Your task to perform on an android device: Open the calendar app, open the side menu, and click the "Day" option Image 0: 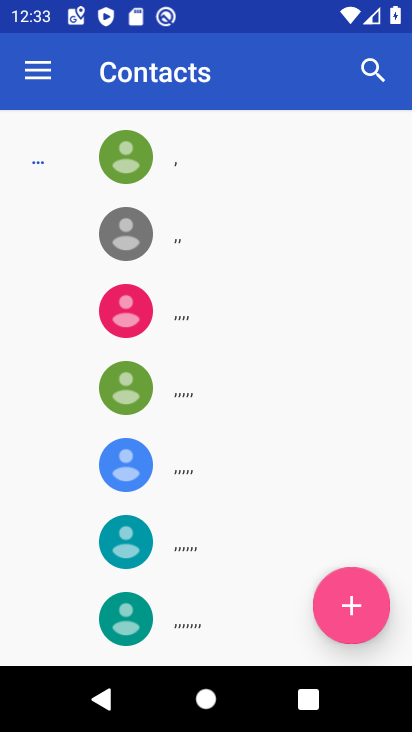
Step 0: press home button
Your task to perform on an android device: Open the calendar app, open the side menu, and click the "Day" option Image 1: 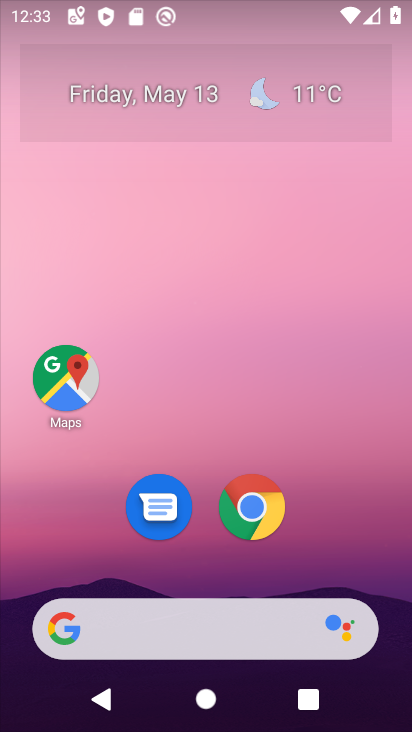
Step 1: drag from (195, 560) to (186, 24)
Your task to perform on an android device: Open the calendar app, open the side menu, and click the "Day" option Image 2: 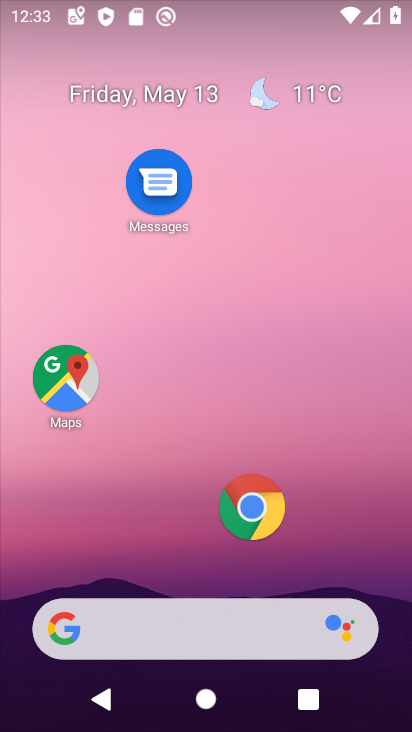
Step 2: drag from (194, 559) to (119, 2)
Your task to perform on an android device: Open the calendar app, open the side menu, and click the "Day" option Image 3: 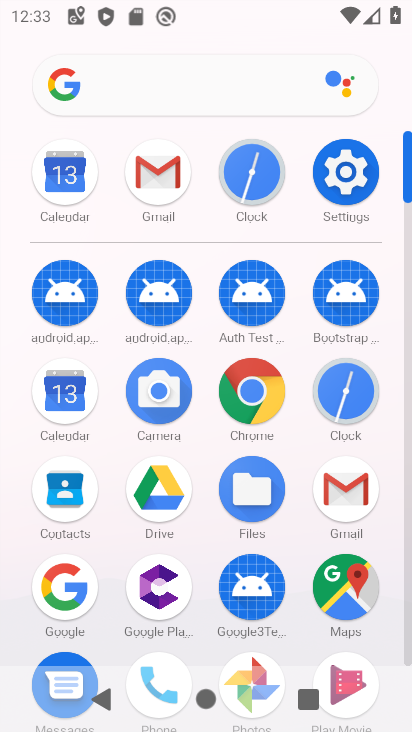
Step 3: click (55, 384)
Your task to perform on an android device: Open the calendar app, open the side menu, and click the "Day" option Image 4: 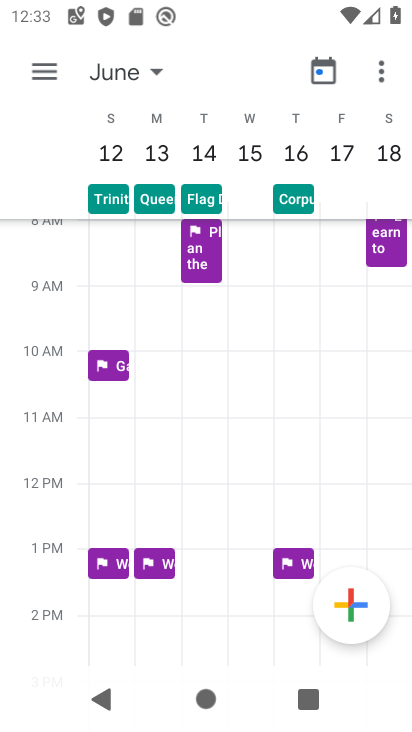
Step 4: click (29, 71)
Your task to perform on an android device: Open the calendar app, open the side menu, and click the "Day" option Image 5: 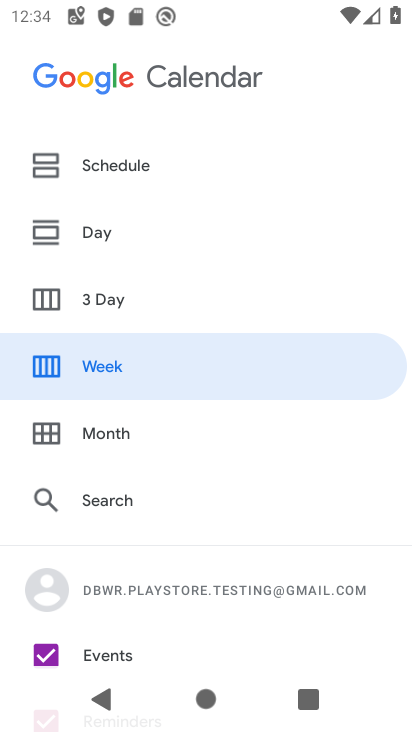
Step 5: click (101, 236)
Your task to perform on an android device: Open the calendar app, open the side menu, and click the "Day" option Image 6: 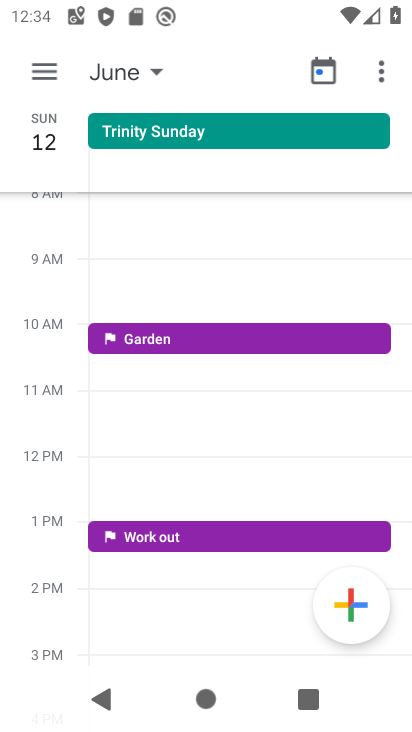
Step 6: task complete